Your task to perform on an android device: turn on improve location accuracy Image 0: 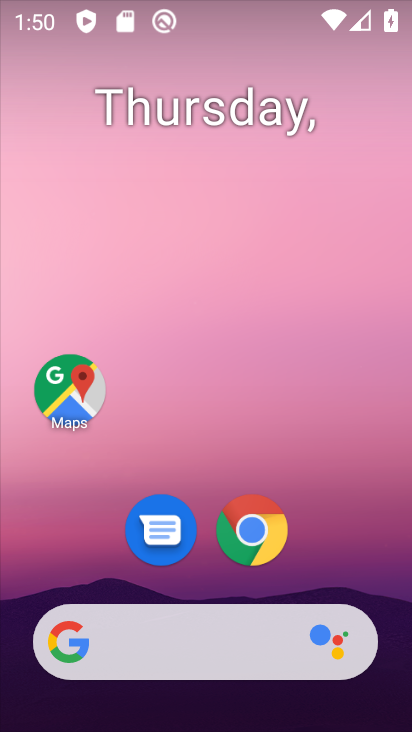
Step 0: drag from (163, 713) to (294, 8)
Your task to perform on an android device: turn on improve location accuracy Image 1: 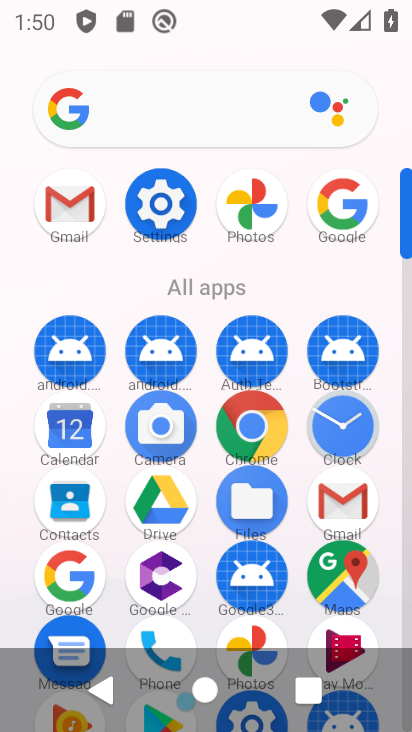
Step 1: click (157, 177)
Your task to perform on an android device: turn on improve location accuracy Image 2: 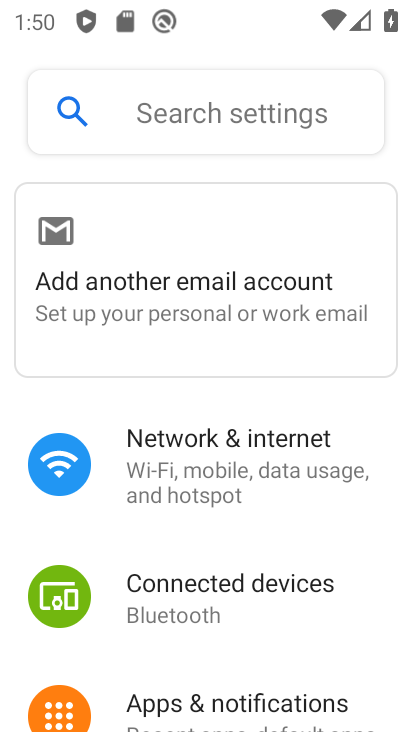
Step 2: drag from (322, 678) to (288, 7)
Your task to perform on an android device: turn on improve location accuracy Image 3: 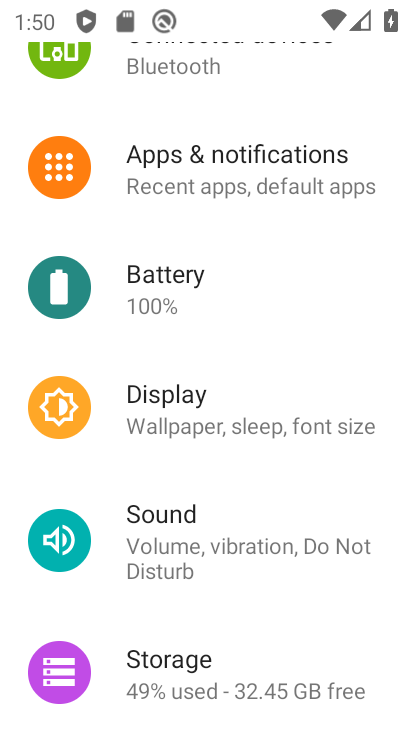
Step 3: drag from (219, 632) to (99, 113)
Your task to perform on an android device: turn on improve location accuracy Image 4: 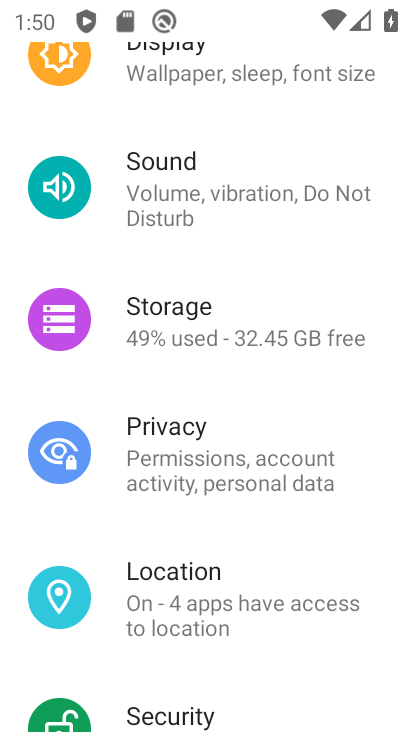
Step 4: click (212, 596)
Your task to perform on an android device: turn on improve location accuracy Image 5: 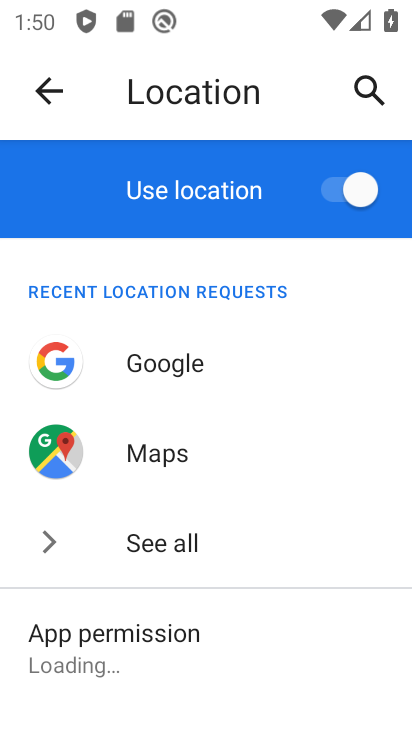
Step 5: task complete